Your task to perform on an android device: open sync settings in chrome Image 0: 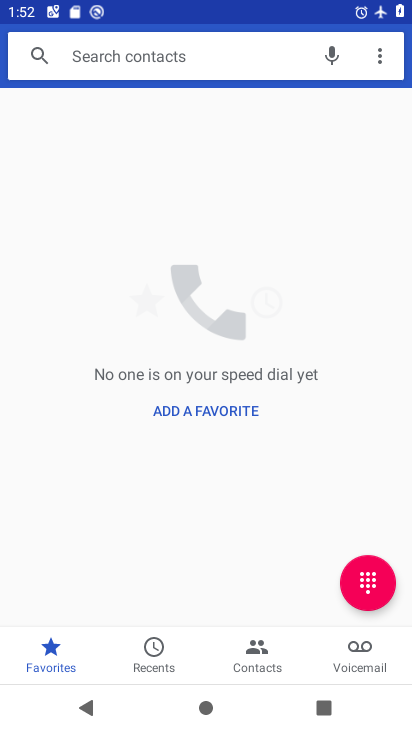
Step 0: press home button
Your task to perform on an android device: open sync settings in chrome Image 1: 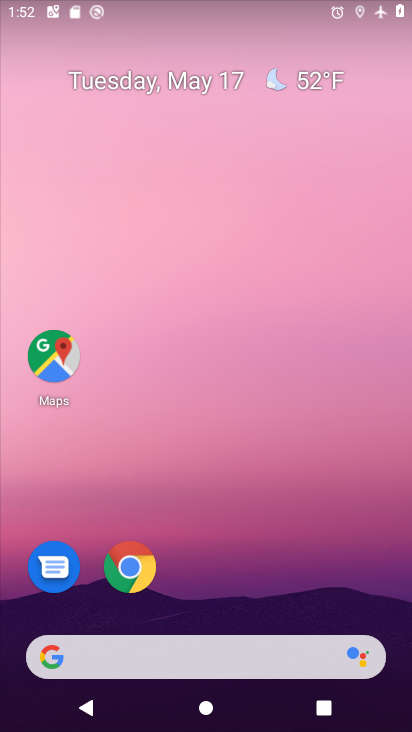
Step 1: click (114, 579)
Your task to perform on an android device: open sync settings in chrome Image 2: 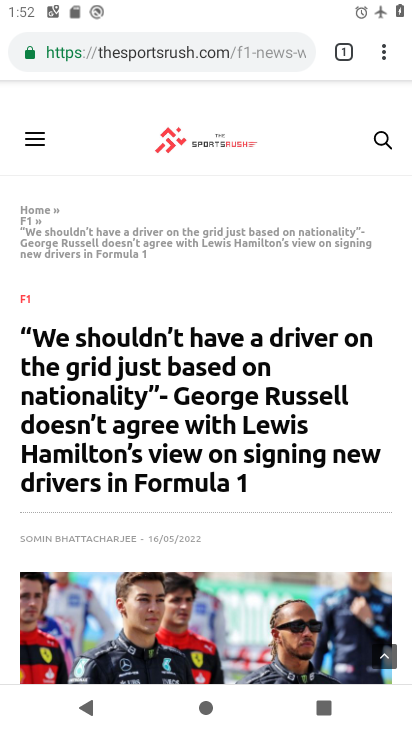
Step 2: click (386, 47)
Your task to perform on an android device: open sync settings in chrome Image 3: 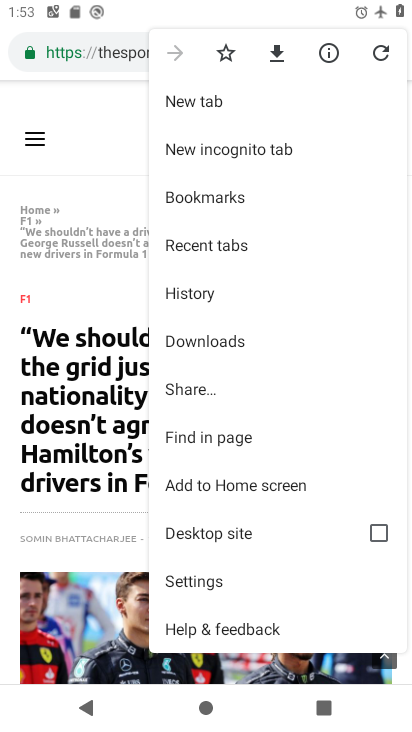
Step 3: click (191, 582)
Your task to perform on an android device: open sync settings in chrome Image 4: 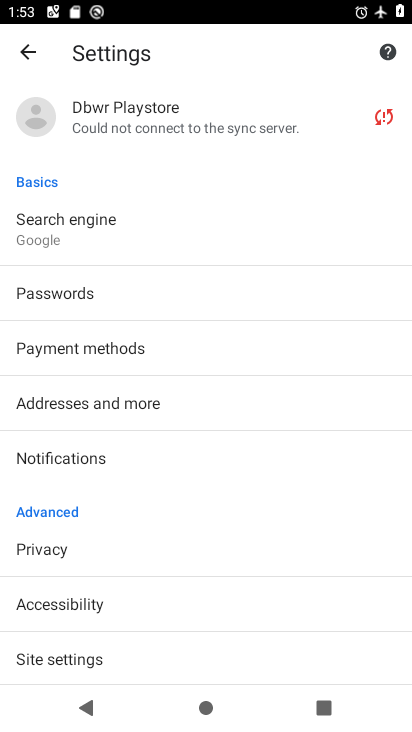
Step 4: click (157, 134)
Your task to perform on an android device: open sync settings in chrome Image 5: 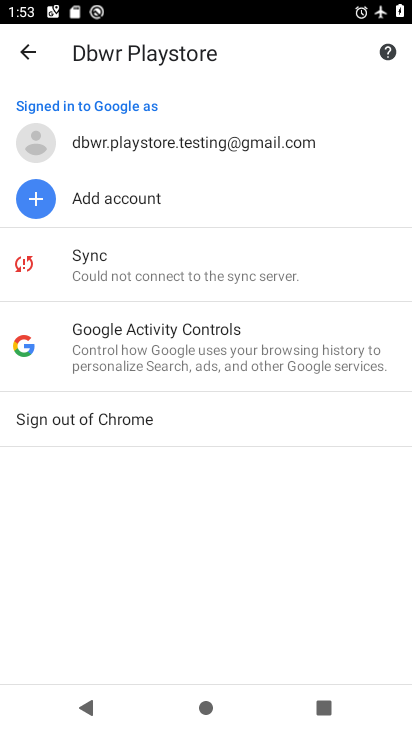
Step 5: click (112, 259)
Your task to perform on an android device: open sync settings in chrome Image 6: 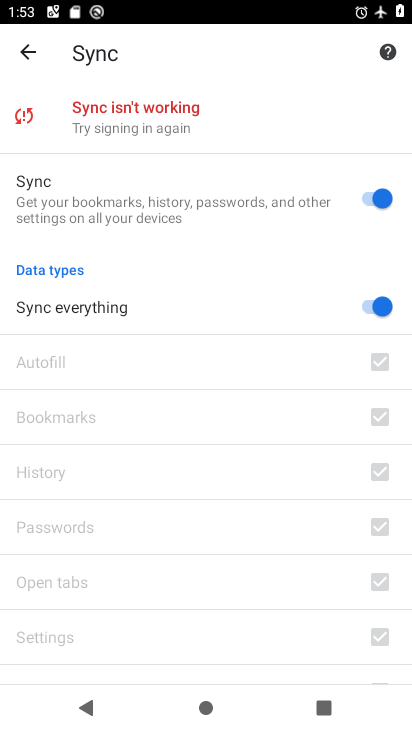
Step 6: task complete